Your task to perform on an android device: set an alarm Image 0: 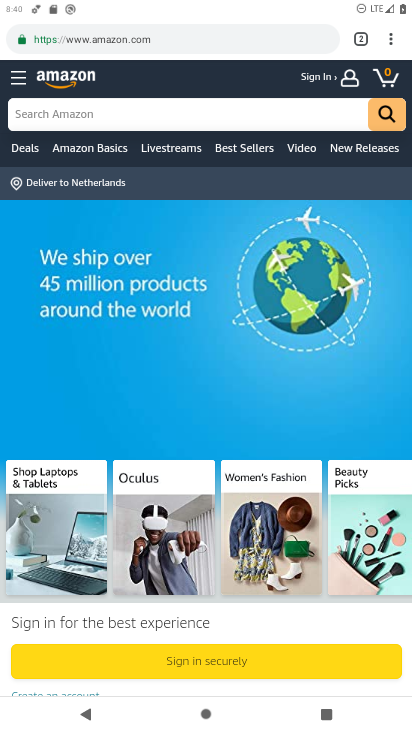
Step 0: press home button
Your task to perform on an android device: set an alarm Image 1: 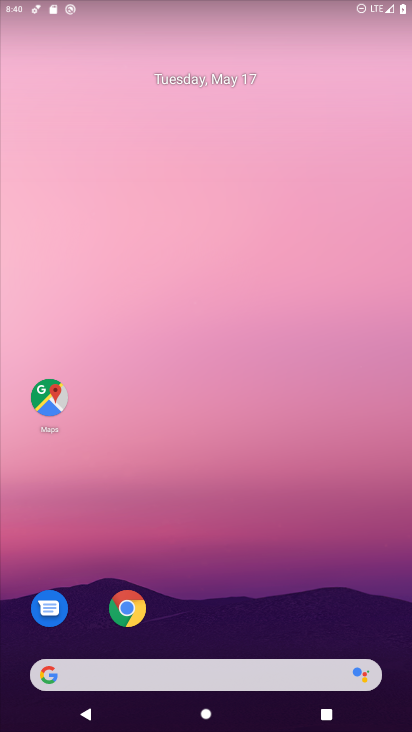
Step 1: drag from (199, 625) to (277, 92)
Your task to perform on an android device: set an alarm Image 2: 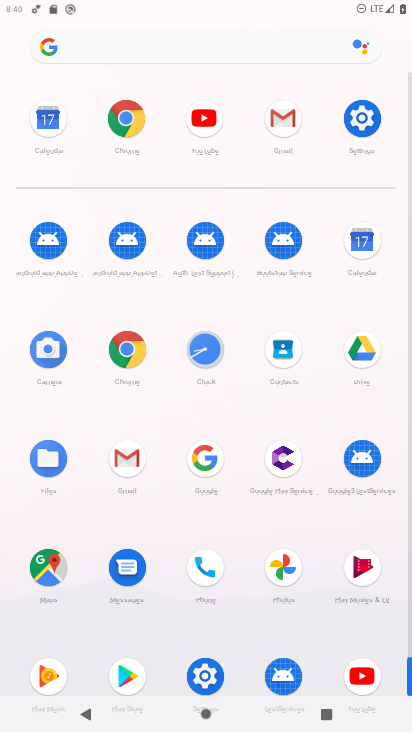
Step 2: click (210, 346)
Your task to perform on an android device: set an alarm Image 3: 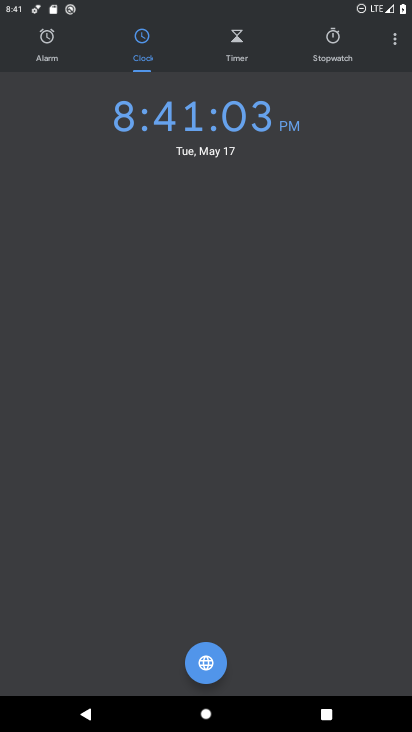
Step 3: click (64, 59)
Your task to perform on an android device: set an alarm Image 4: 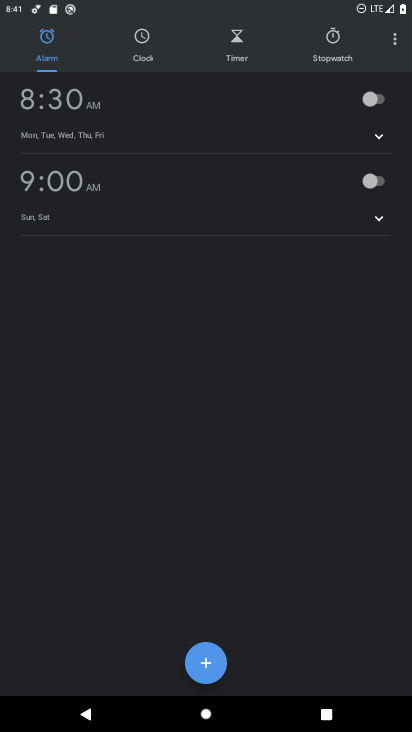
Step 4: click (124, 123)
Your task to perform on an android device: set an alarm Image 5: 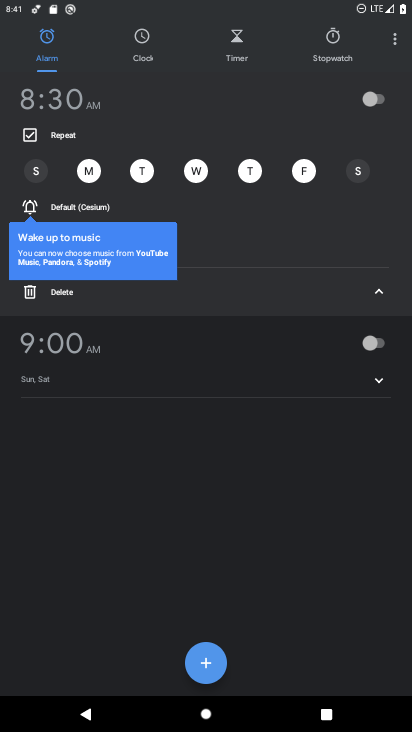
Step 5: click (71, 104)
Your task to perform on an android device: set an alarm Image 6: 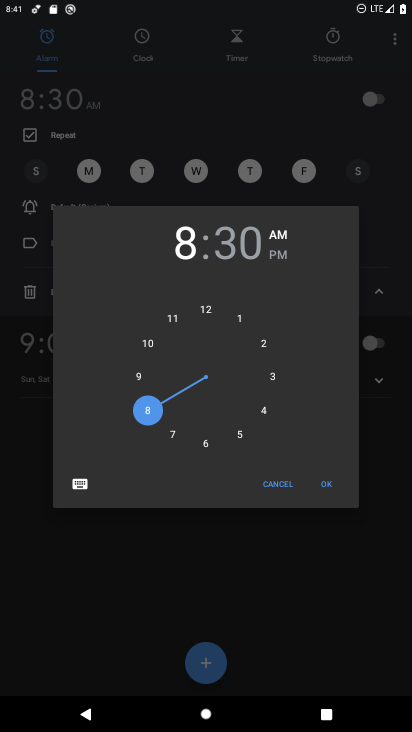
Step 6: click (261, 340)
Your task to perform on an android device: set an alarm Image 7: 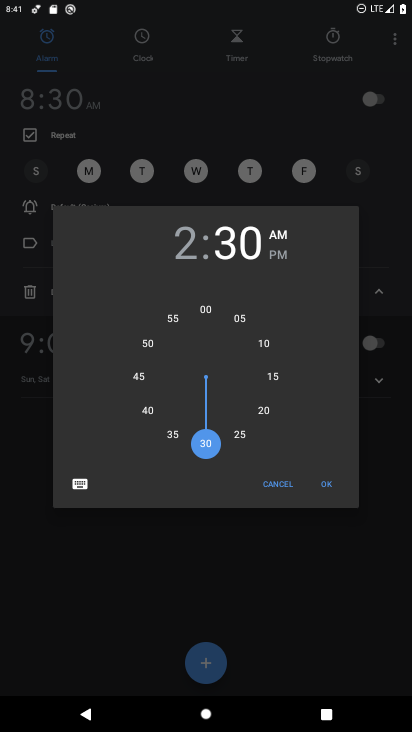
Step 7: click (141, 345)
Your task to perform on an android device: set an alarm Image 8: 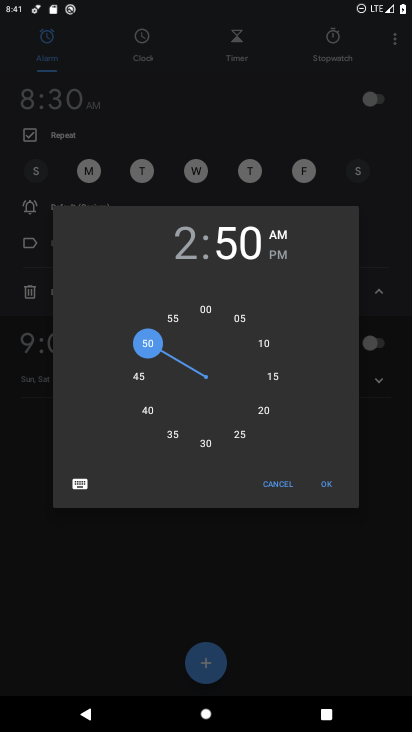
Step 8: click (273, 258)
Your task to perform on an android device: set an alarm Image 9: 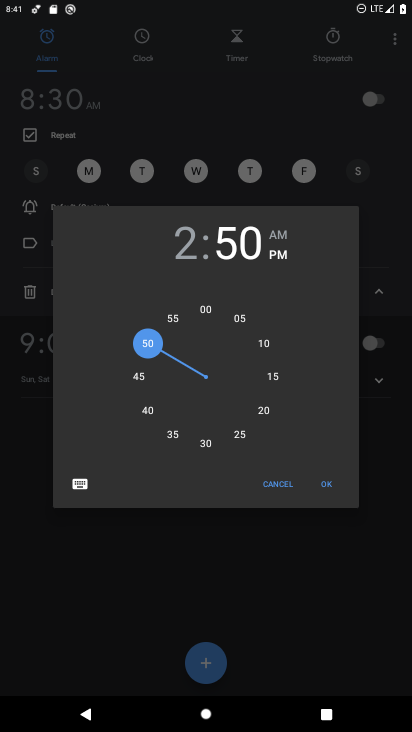
Step 9: click (334, 488)
Your task to perform on an android device: set an alarm Image 10: 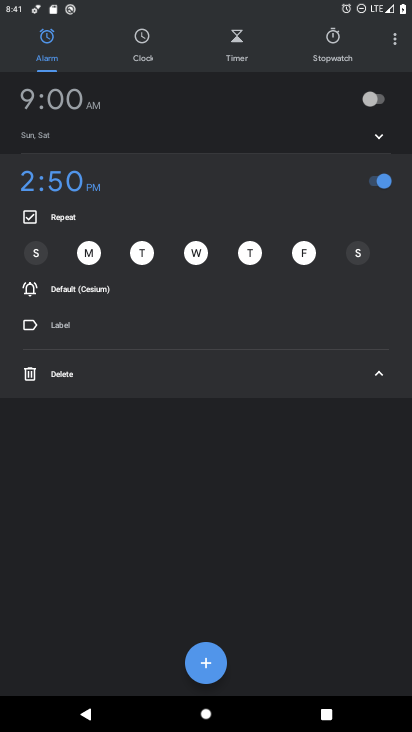
Step 10: click (252, 252)
Your task to perform on an android device: set an alarm Image 11: 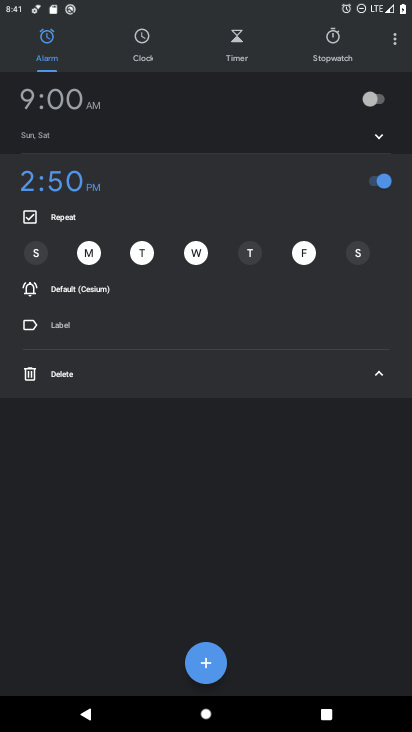
Step 11: click (361, 252)
Your task to perform on an android device: set an alarm Image 12: 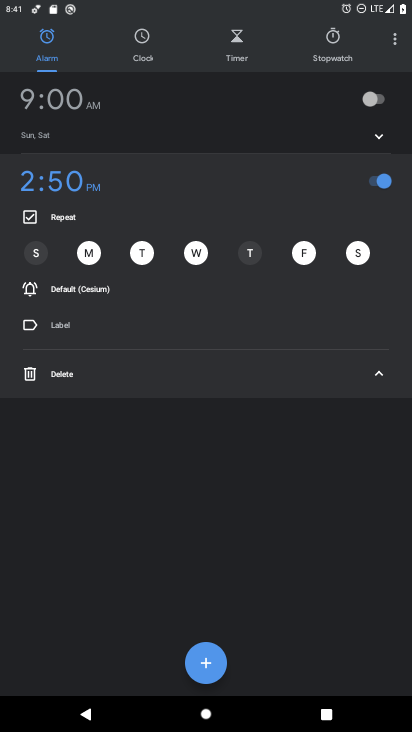
Step 12: click (40, 251)
Your task to perform on an android device: set an alarm Image 13: 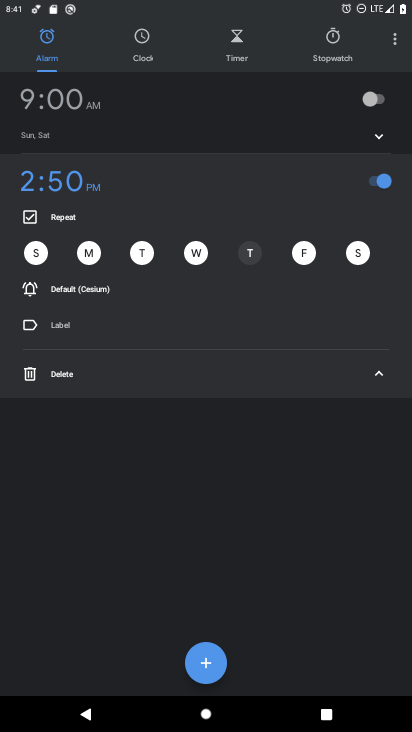
Step 13: click (89, 258)
Your task to perform on an android device: set an alarm Image 14: 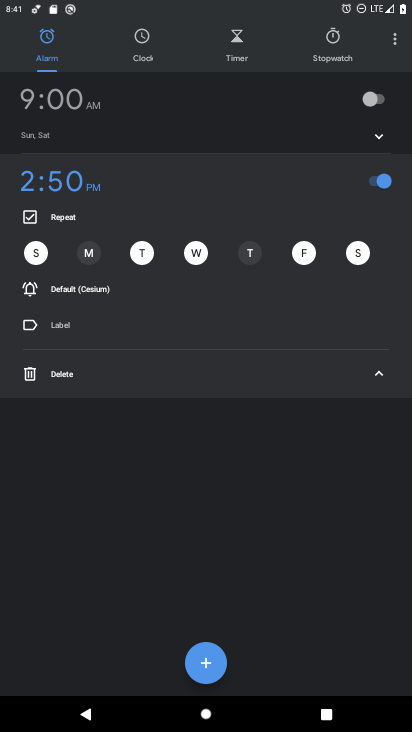
Step 14: click (158, 257)
Your task to perform on an android device: set an alarm Image 15: 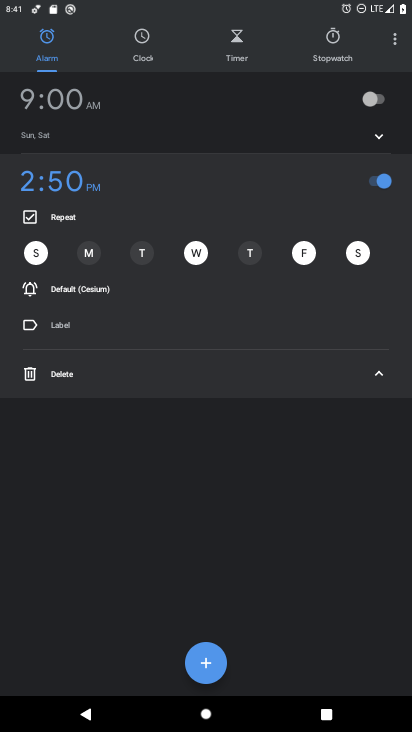
Step 15: task complete